Your task to perform on an android device: find which apps use the phone's location Image 0: 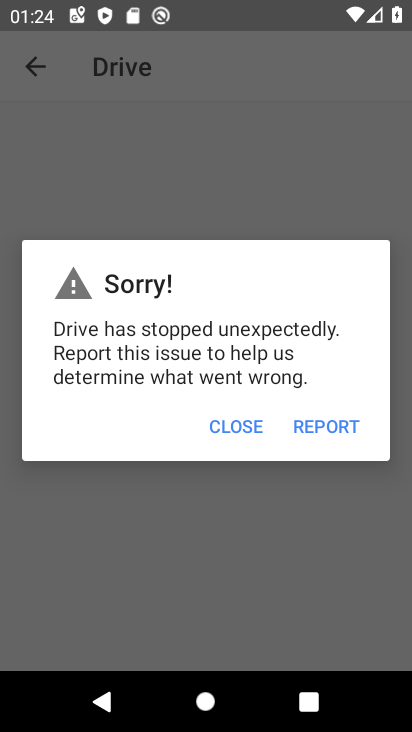
Step 0: press home button
Your task to perform on an android device: find which apps use the phone's location Image 1: 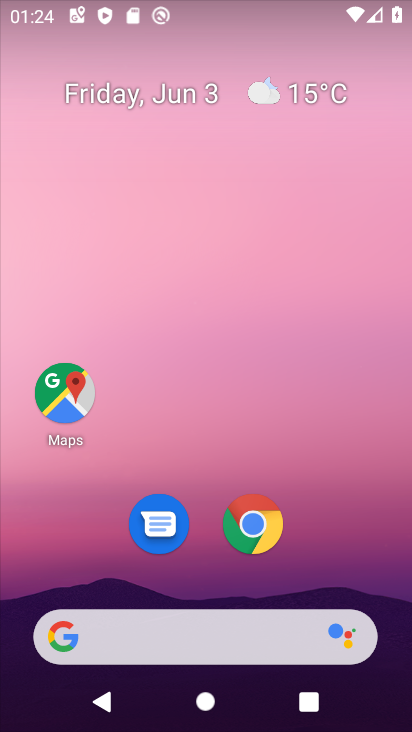
Step 1: drag from (307, 558) to (343, 0)
Your task to perform on an android device: find which apps use the phone's location Image 2: 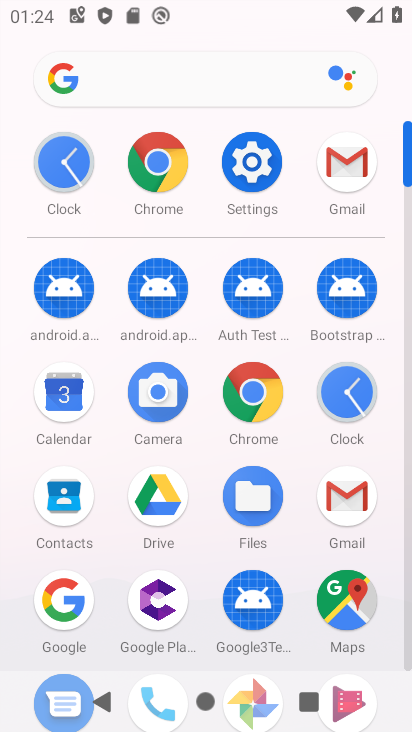
Step 2: click (254, 153)
Your task to perform on an android device: find which apps use the phone's location Image 3: 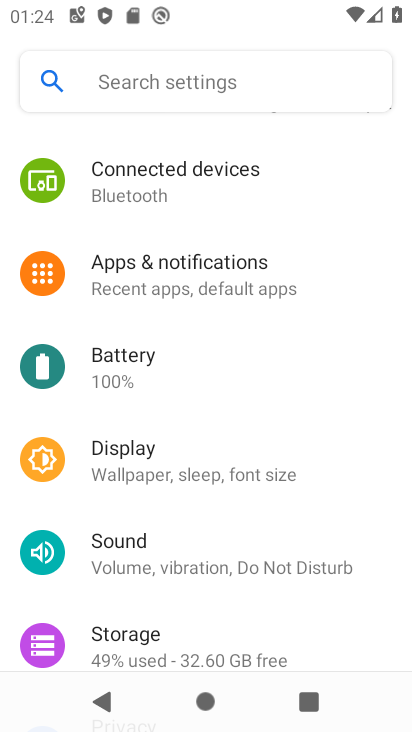
Step 3: drag from (244, 594) to (282, 67)
Your task to perform on an android device: find which apps use the phone's location Image 4: 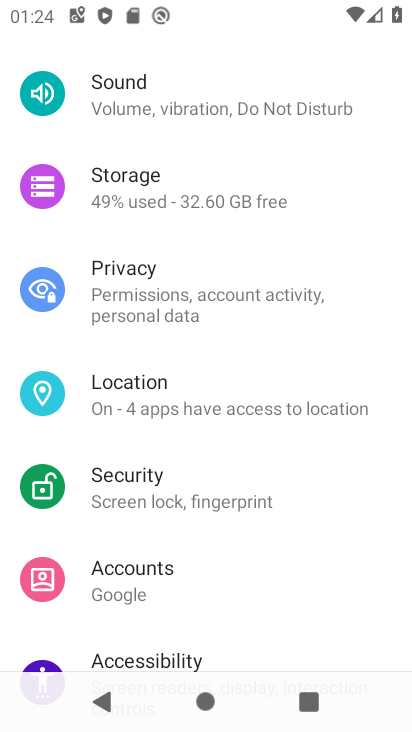
Step 4: click (223, 386)
Your task to perform on an android device: find which apps use the phone's location Image 5: 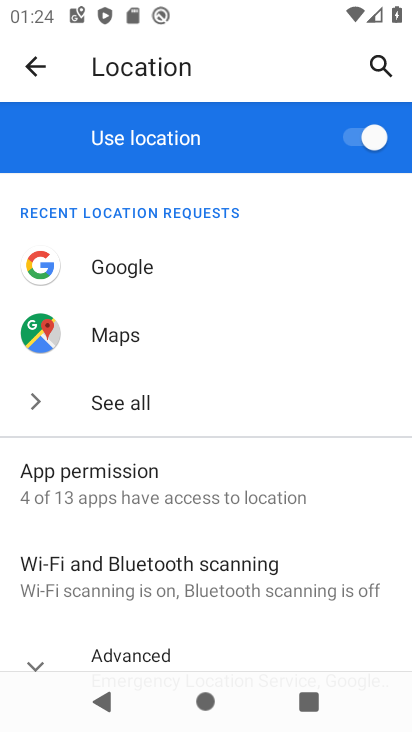
Step 5: click (237, 474)
Your task to perform on an android device: find which apps use the phone's location Image 6: 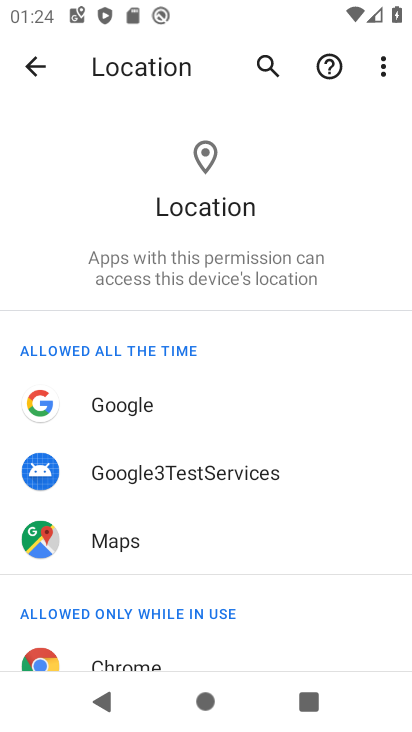
Step 6: task complete